Your task to perform on an android device: Open the stopwatch Image 0: 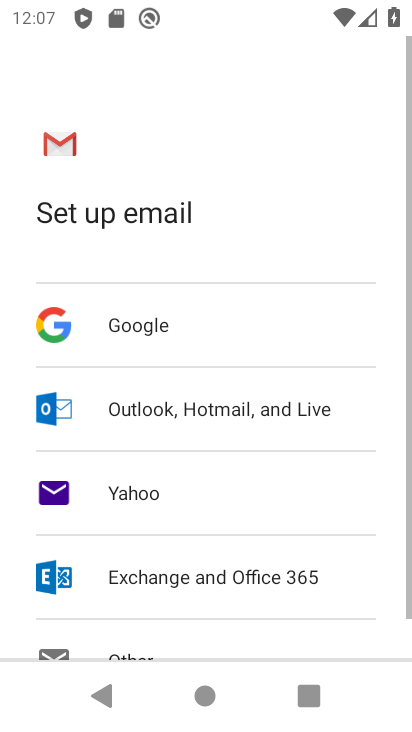
Step 0: press home button
Your task to perform on an android device: Open the stopwatch Image 1: 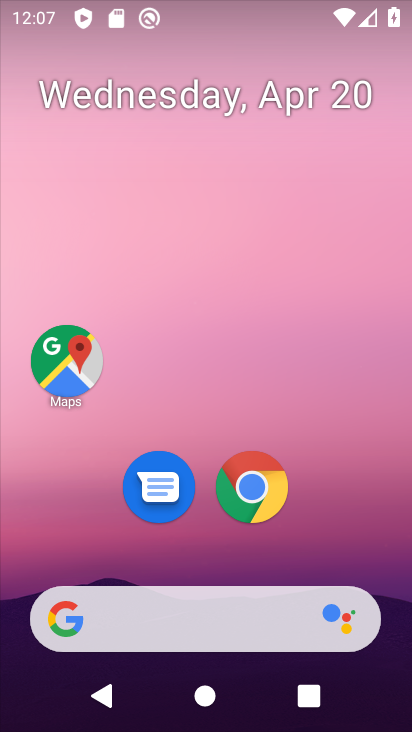
Step 1: drag from (320, 414) to (286, 146)
Your task to perform on an android device: Open the stopwatch Image 2: 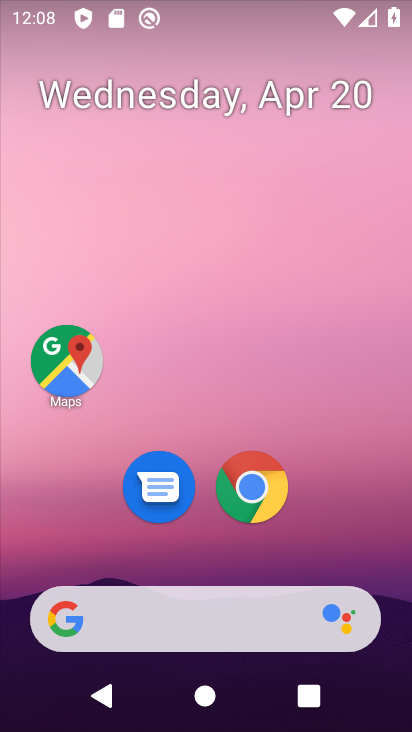
Step 2: drag from (373, 496) to (331, 51)
Your task to perform on an android device: Open the stopwatch Image 3: 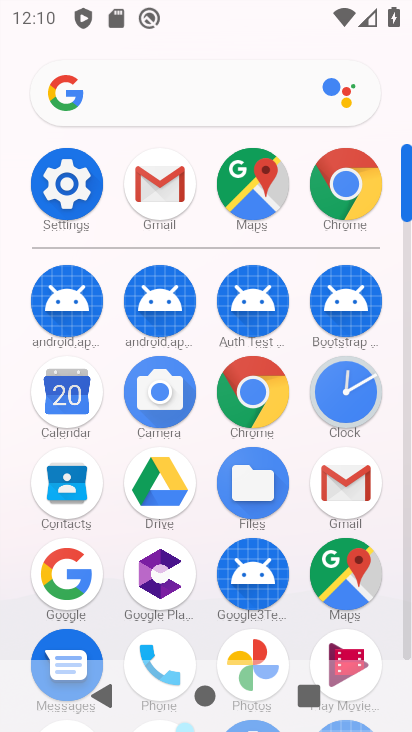
Step 3: click (335, 381)
Your task to perform on an android device: Open the stopwatch Image 4: 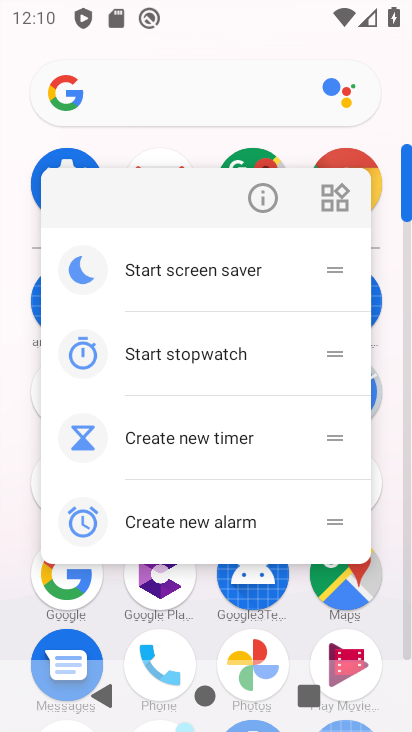
Step 4: press back button
Your task to perform on an android device: Open the stopwatch Image 5: 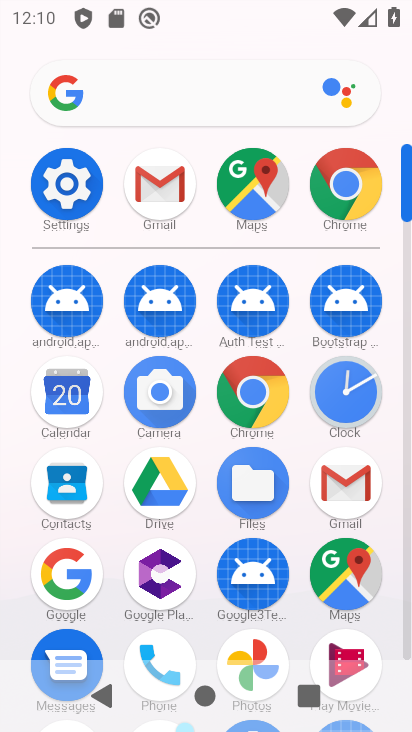
Step 5: click (358, 392)
Your task to perform on an android device: Open the stopwatch Image 6: 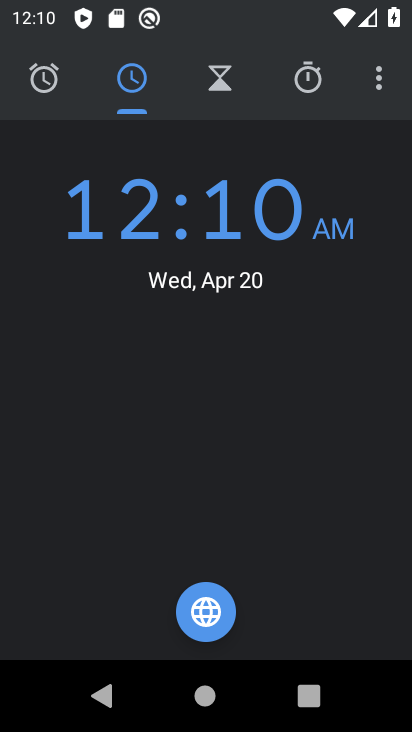
Step 6: click (314, 76)
Your task to perform on an android device: Open the stopwatch Image 7: 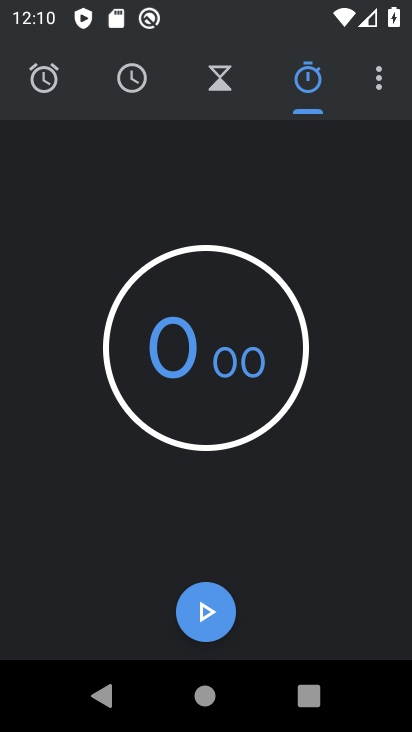
Step 7: task complete